Your task to perform on an android device: manage bookmarks in the chrome app Image 0: 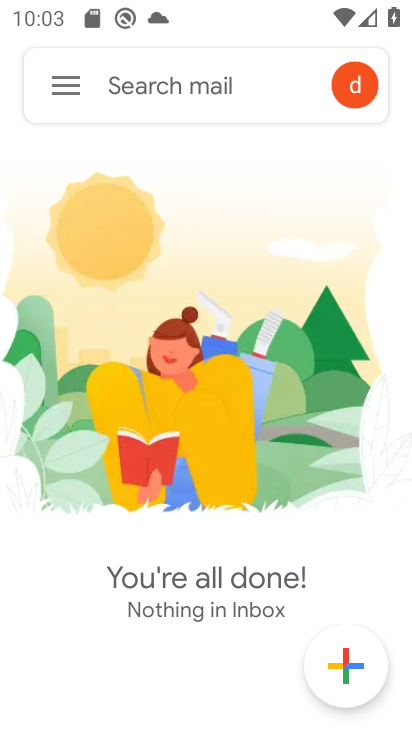
Step 0: press home button
Your task to perform on an android device: manage bookmarks in the chrome app Image 1: 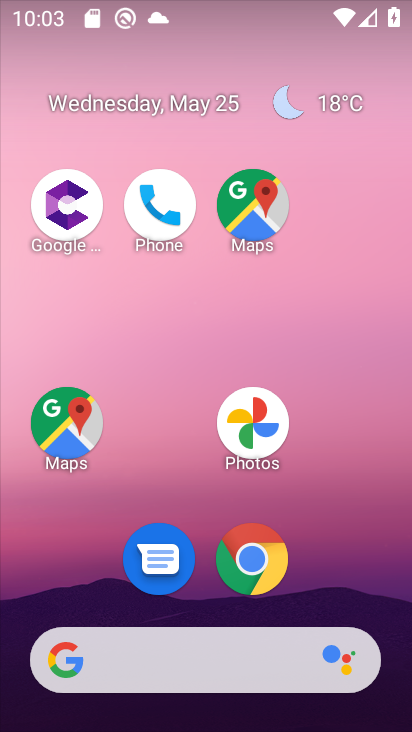
Step 1: click (254, 558)
Your task to perform on an android device: manage bookmarks in the chrome app Image 2: 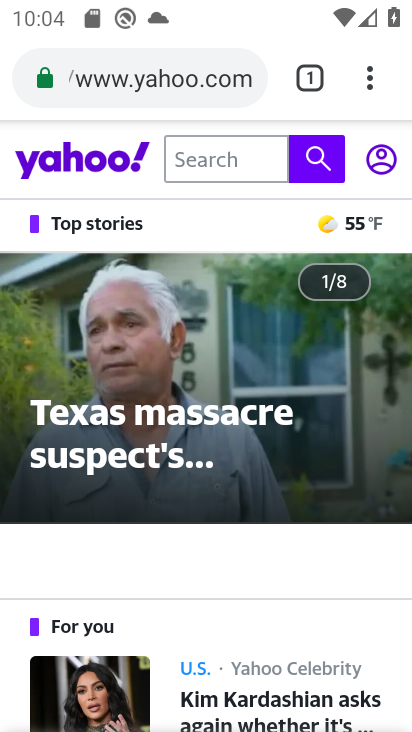
Step 2: click (377, 81)
Your task to perform on an android device: manage bookmarks in the chrome app Image 3: 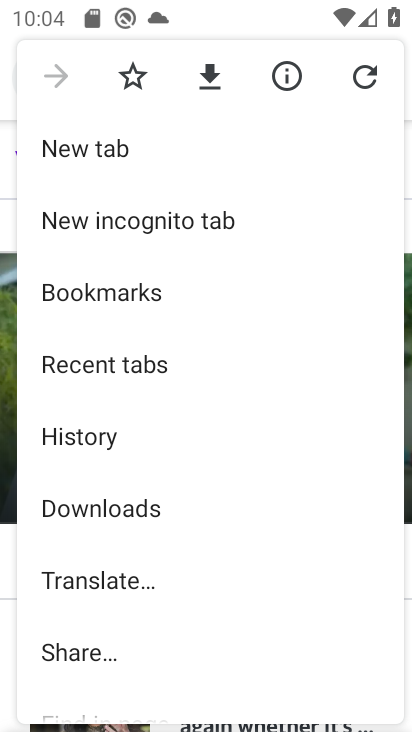
Step 3: click (110, 288)
Your task to perform on an android device: manage bookmarks in the chrome app Image 4: 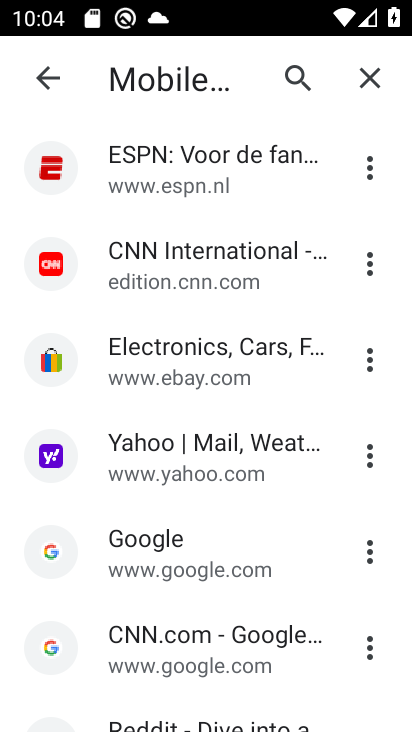
Step 4: click (374, 554)
Your task to perform on an android device: manage bookmarks in the chrome app Image 5: 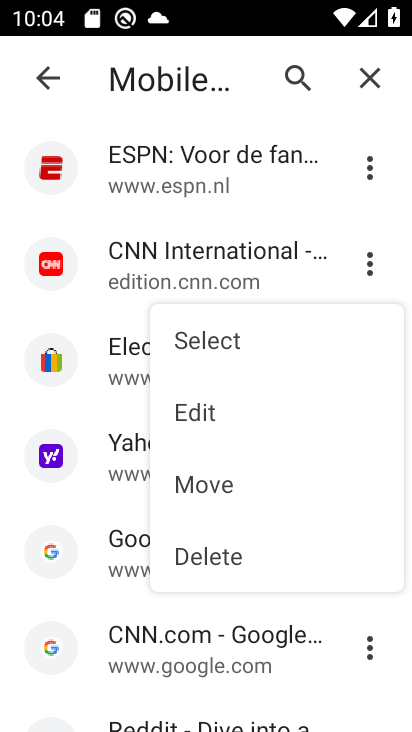
Step 5: click (224, 342)
Your task to perform on an android device: manage bookmarks in the chrome app Image 6: 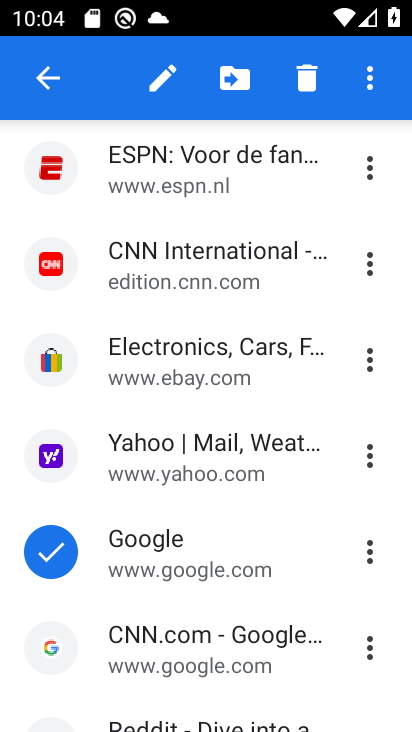
Step 6: click (54, 648)
Your task to perform on an android device: manage bookmarks in the chrome app Image 7: 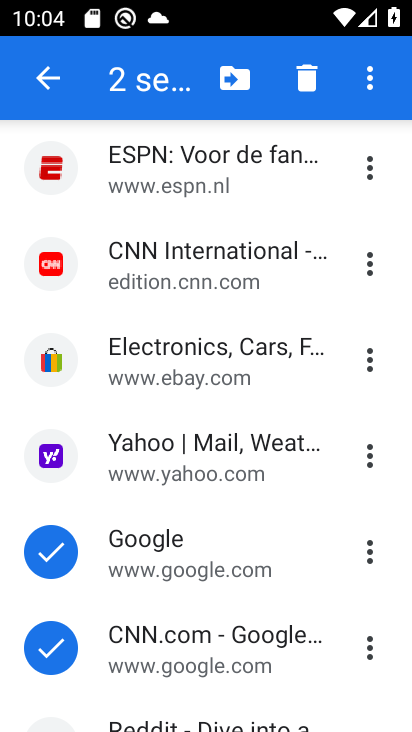
Step 7: click (304, 78)
Your task to perform on an android device: manage bookmarks in the chrome app Image 8: 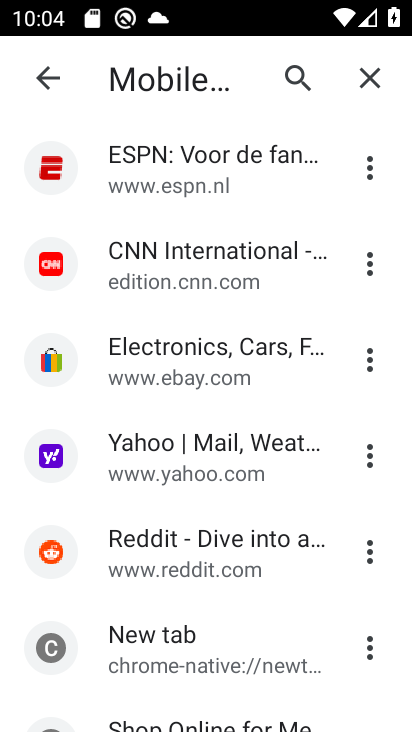
Step 8: task complete